Your task to perform on an android device: turn off improve location accuracy Image 0: 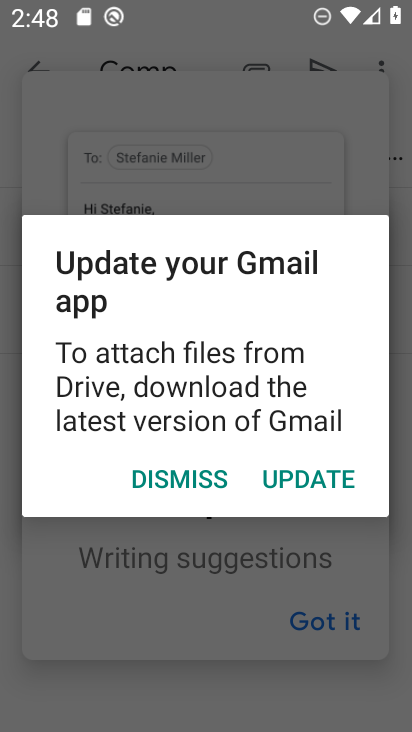
Step 0: press back button
Your task to perform on an android device: turn off improve location accuracy Image 1: 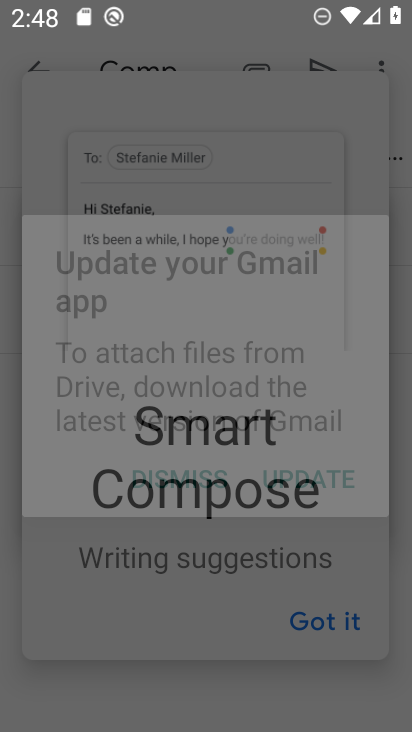
Step 1: press home button
Your task to perform on an android device: turn off improve location accuracy Image 2: 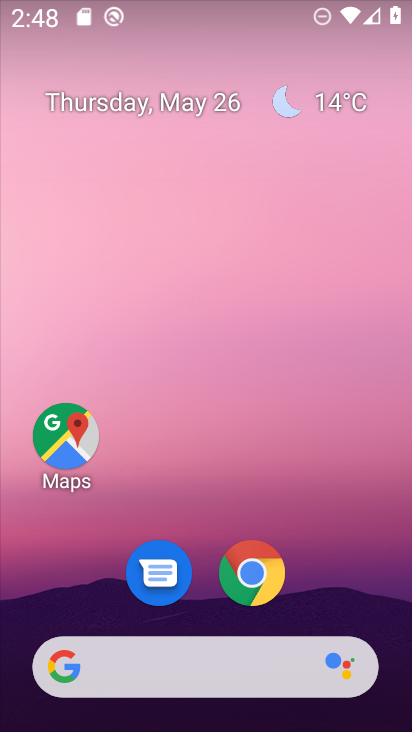
Step 2: drag from (370, 600) to (259, 80)
Your task to perform on an android device: turn off improve location accuracy Image 3: 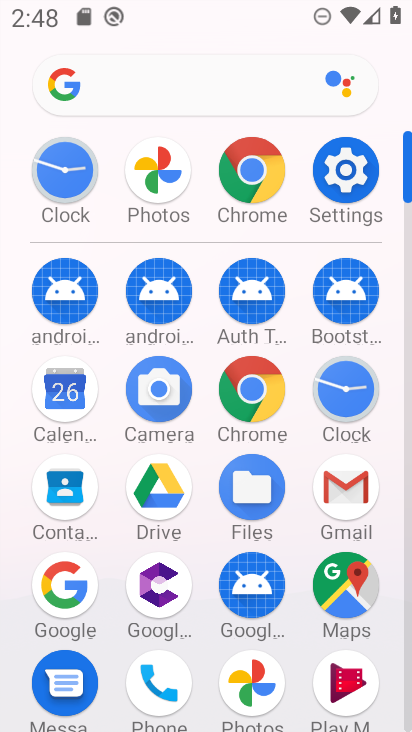
Step 3: drag from (13, 636) to (22, 327)
Your task to perform on an android device: turn off improve location accuracy Image 4: 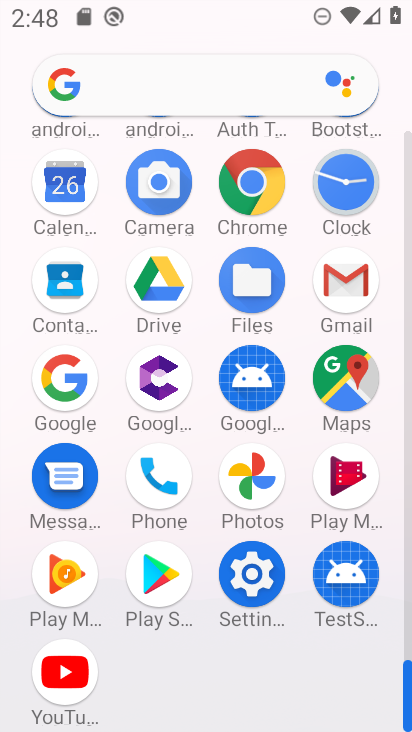
Step 4: click (251, 572)
Your task to perform on an android device: turn off improve location accuracy Image 5: 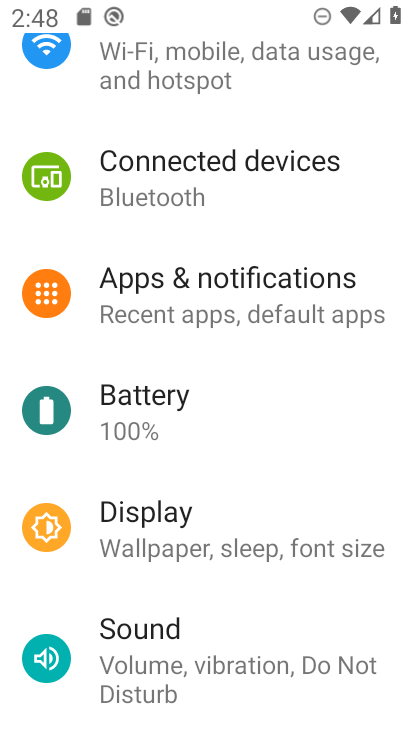
Step 5: drag from (229, 594) to (233, 226)
Your task to perform on an android device: turn off improve location accuracy Image 6: 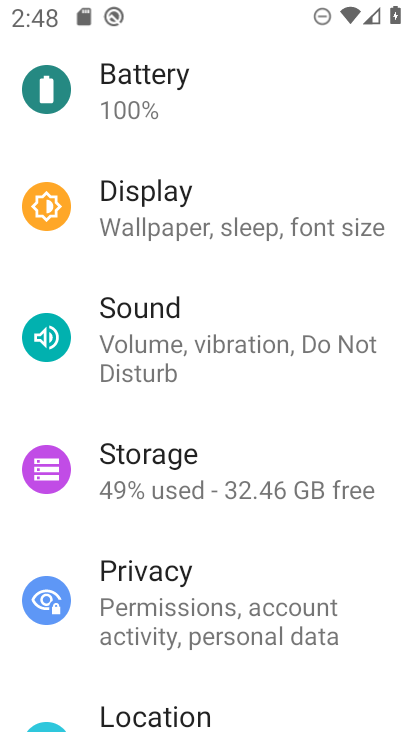
Step 6: drag from (215, 553) to (214, 217)
Your task to perform on an android device: turn off improve location accuracy Image 7: 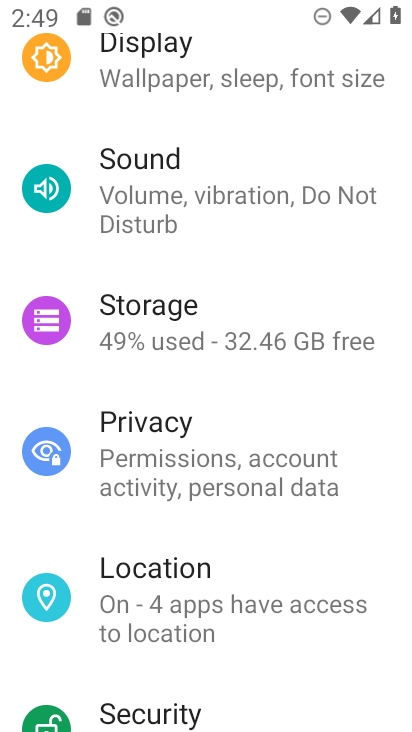
Step 7: click (204, 563)
Your task to perform on an android device: turn off improve location accuracy Image 8: 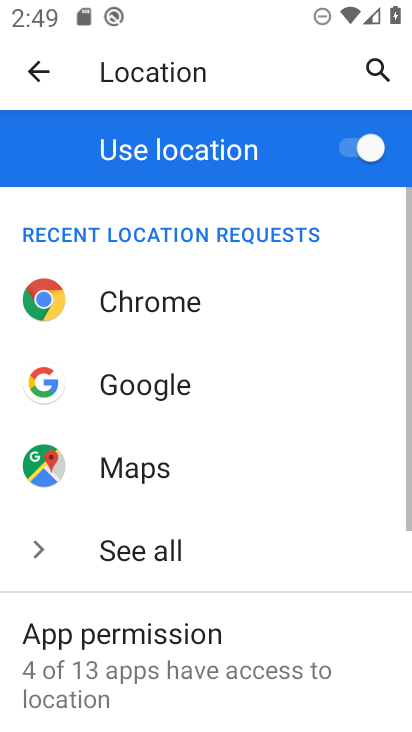
Step 8: drag from (239, 620) to (238, 253)
Your task to perform on an android device: turn off improve location accuracy Image 9: 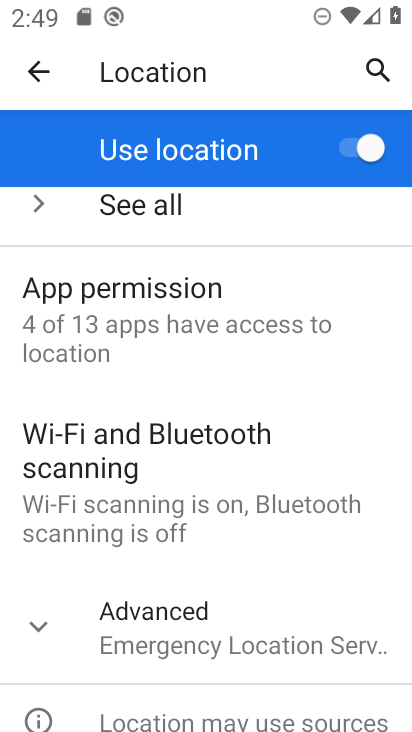
Step 9: click (47, 604)
Your task to perform on an android device: turn off improve location accuracy Image 10: 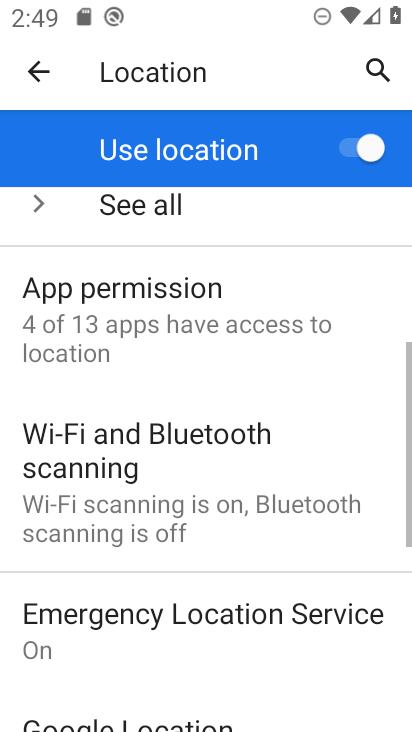
Step 10: drag from (231, 667) to (255, 248)
Your task to perform on an android device: turn off improve location accuracy Image 11: 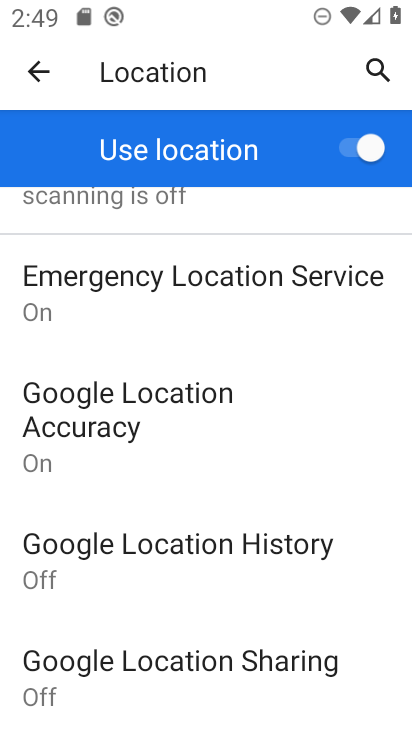
Step 11: click (181, 430)
Your task to perform on an android device: turn off improve location accuracy Image 12: 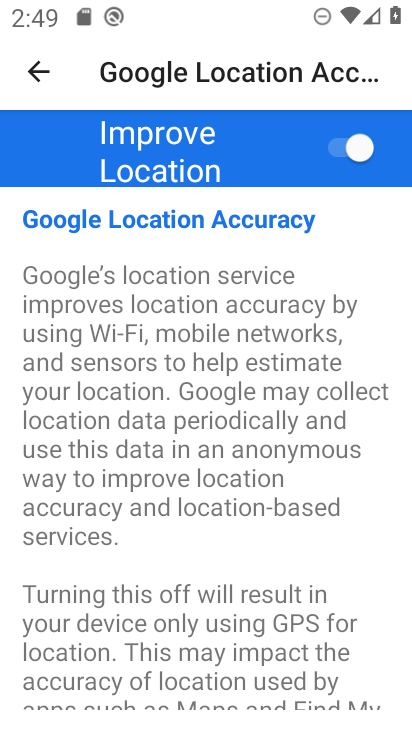
Step 12: click (344, 140)
Your task to perform on an android device: turn off improve location accuracy Image 13: 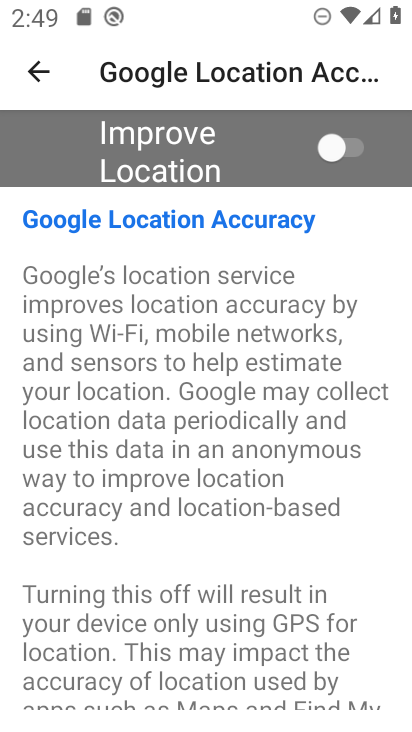
Step 13: task complete